Your task to perform on an android device: Open calendar and show me the fourth week of next month Image 0: 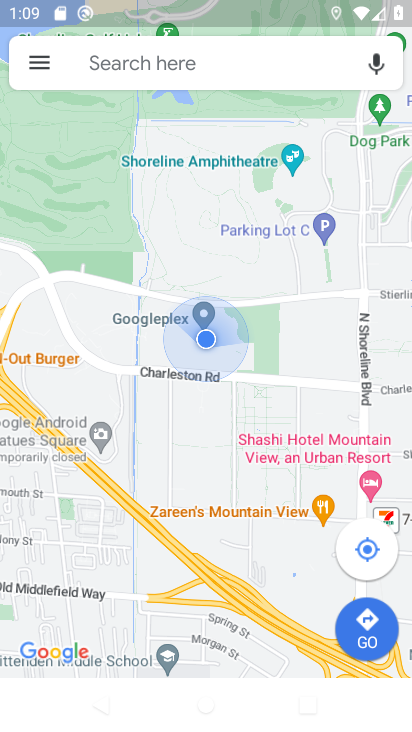
Step 0: press home button
Your task to perform on an android device: Open calendar and show me the fourth week of next month Image 1: 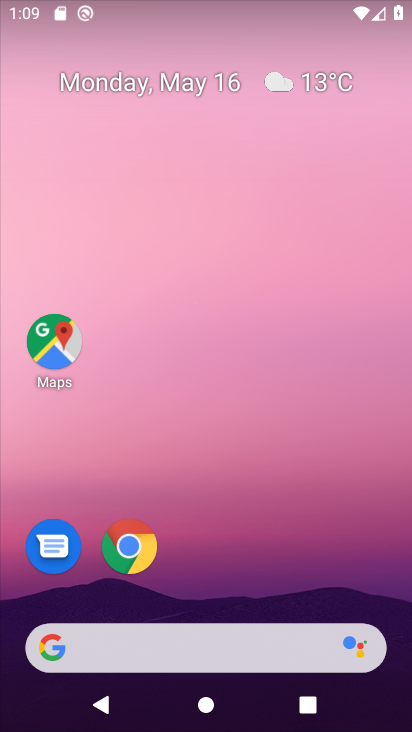
Step 1: drag from (235, 714) to (235, 209)
Your task to perform on an android device: Open calendar and show me the fourth week of next month Image 2: 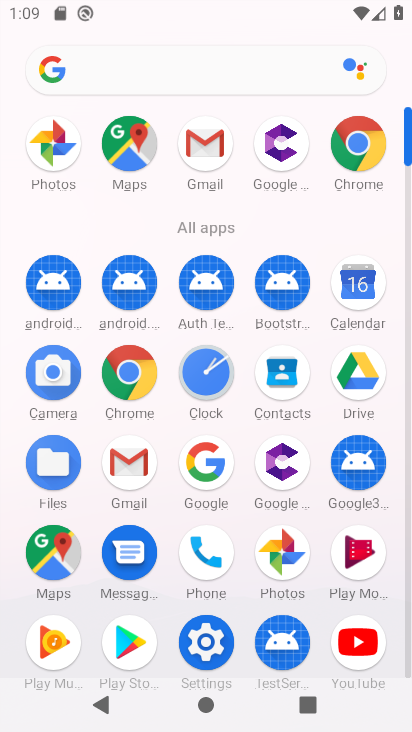
Step 2: click (355, 289)
Your task to perform on an android device: Open calendar and show me the fourth week of next month Image 3: 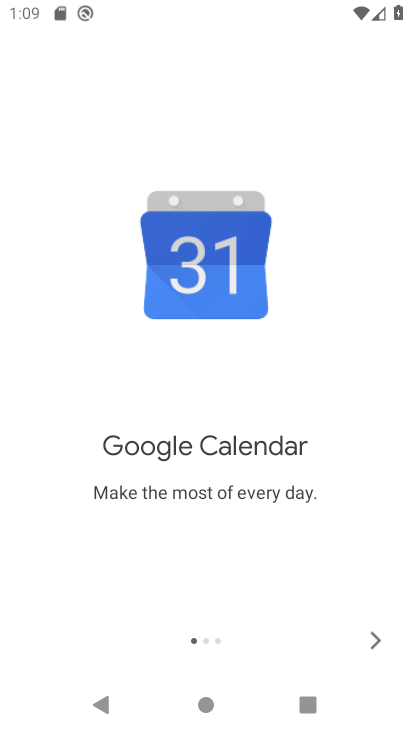
Step 3: click (388, 641)
Your task to perform on an android device: Open calendar and show me the fourth week of next month Image 4: 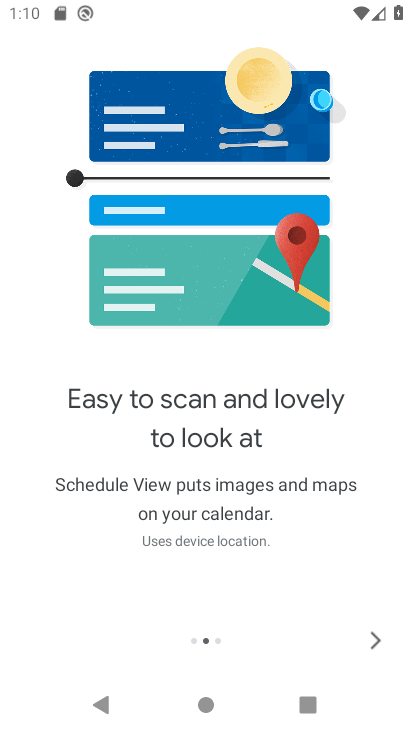
Step 4: click (377, 635)
Your task to perform on an android device: Open calendar and show me the fourth week of next month Image 5: 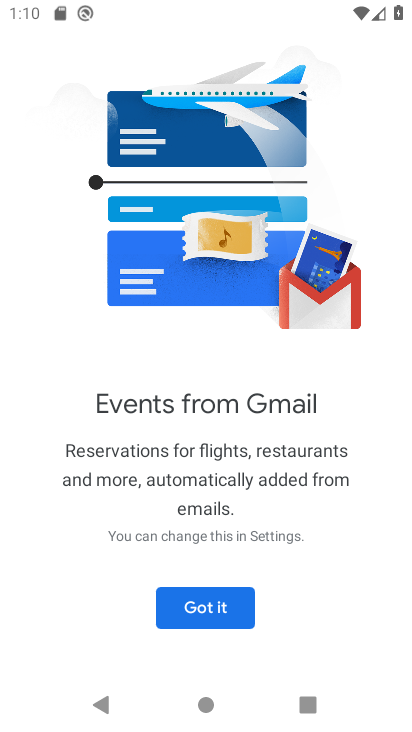
Step 5: click (204, 602)
Your task to perform on an android device: Open calendar and show me the fourth week of next month Image 6: 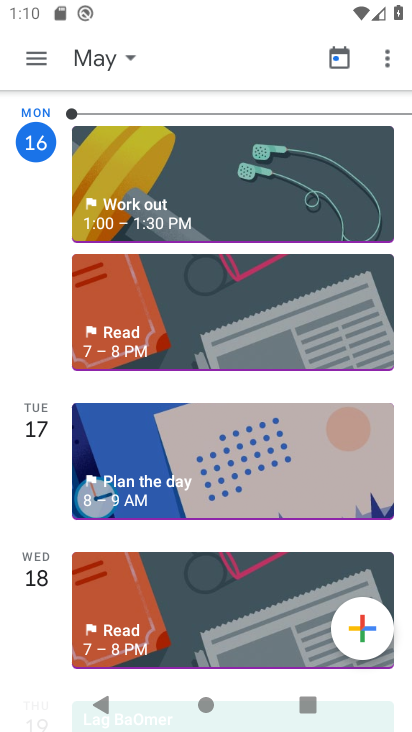
Step 6: click (90, 54)
Your task to perform on an android device: Open calendar and show me the fourth week of next month Image 7: 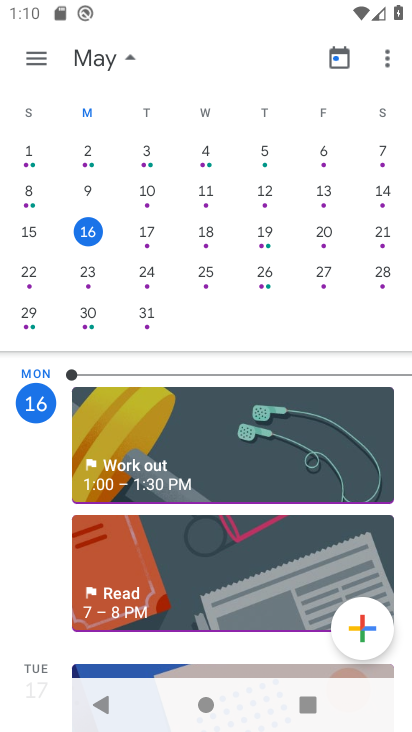
Step 7: drag from (349, 278) to (6, 225)
Your task to perform on an android device: Open calendar and show me the fourth week of next month Image 8: 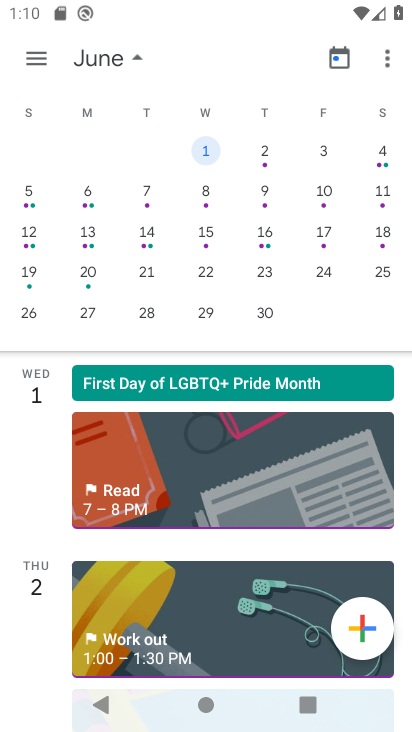
Step 8: click (84, 310)
Your task to perform on an android device: Open calendar and show me the fourth week of next month Image 9: 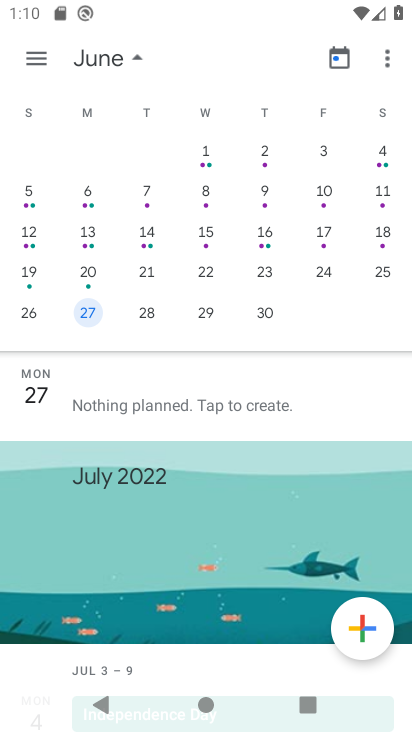
Step 9: click (36, 56)
Your task to perform on an android device: Open calendar and show me the fourth week of next month Image 10: 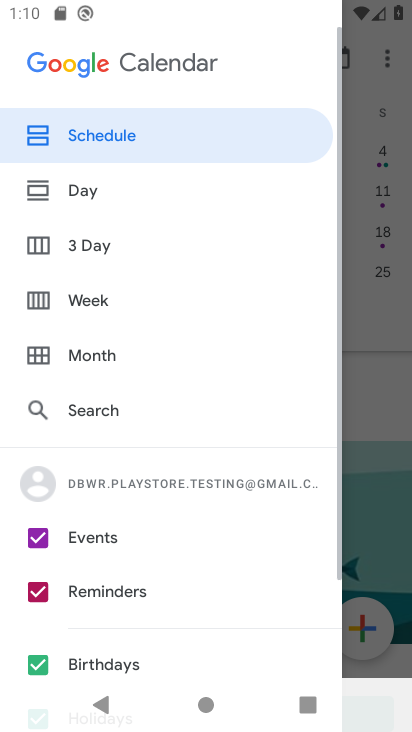
Step 10: click (94, 298)
Your task to perform on an android device: Open calendar and show me the fourth week of next month Image 11: 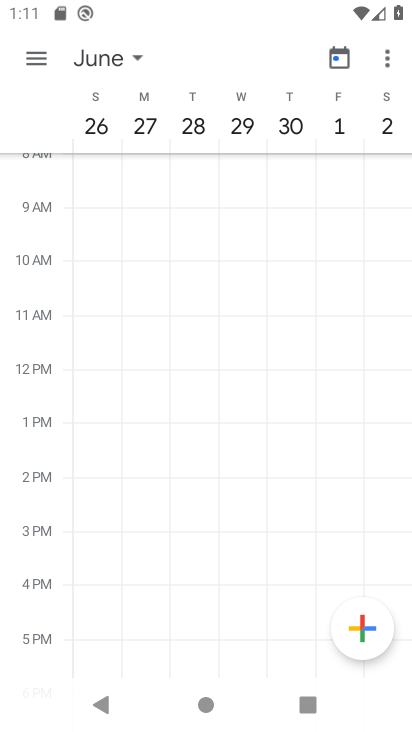
Step 11: task complete